Your task to perform on an android device: turn on data saver in the chrome app Image 0: 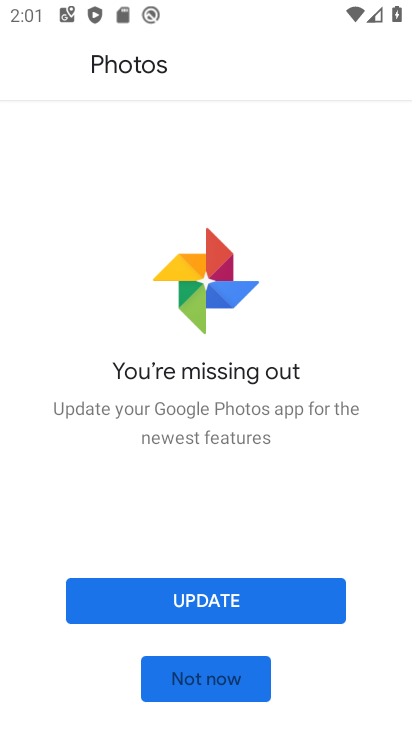
Step 0: press home button
Your task to perform on an android device: turn on data saver in the chrome app Image 1: 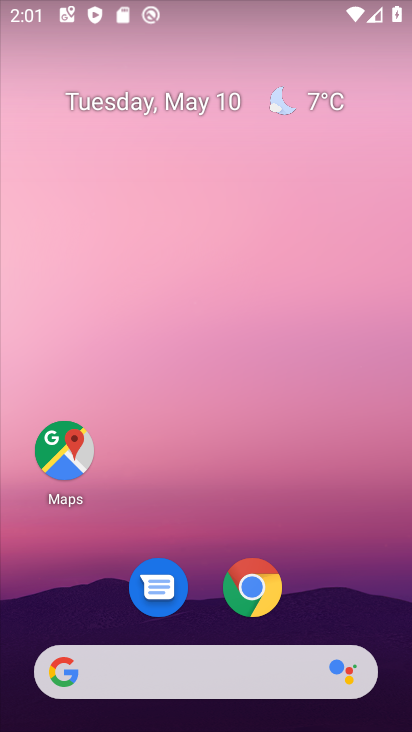
Step 1: click (265, 580)
Your task to perform on an android device: turn on data saver in the chrome app Image 2: 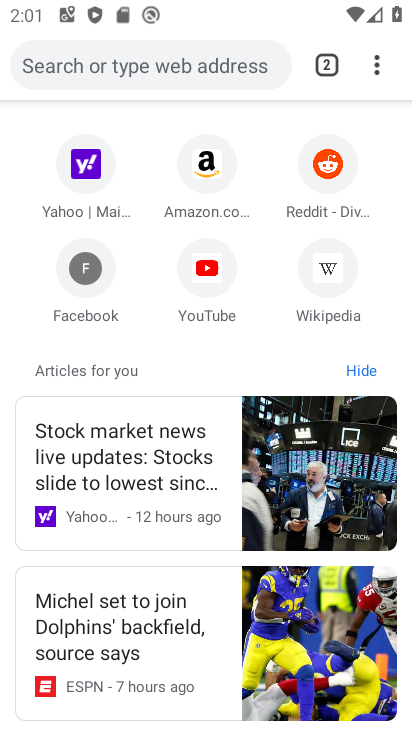
Step 2: click (379, 76)
Your task to perform on an android device: turn on data saver in the chrome app Image 3: 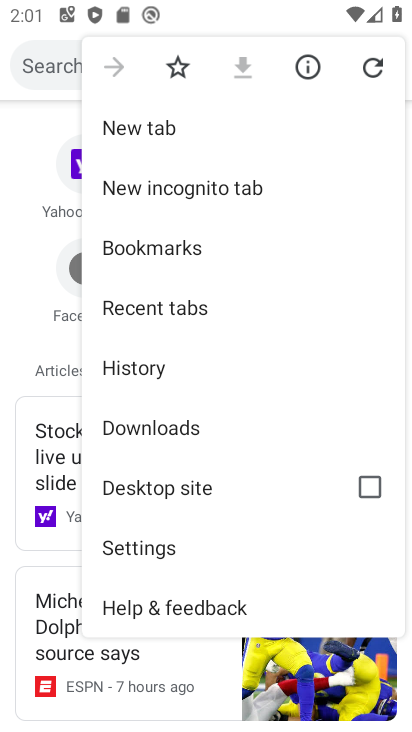
Step 3: click (161, 541)
Your task to perform on an android device: turn on data saver in the chrome app Image 4: 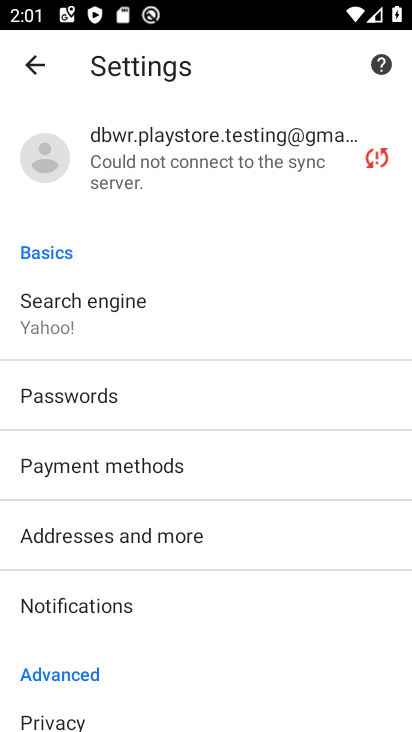
Step 4: drag from (179, 619) to (149, 317)
Your task to perform on an android device: turn on data saver in the chrome app Image 5: 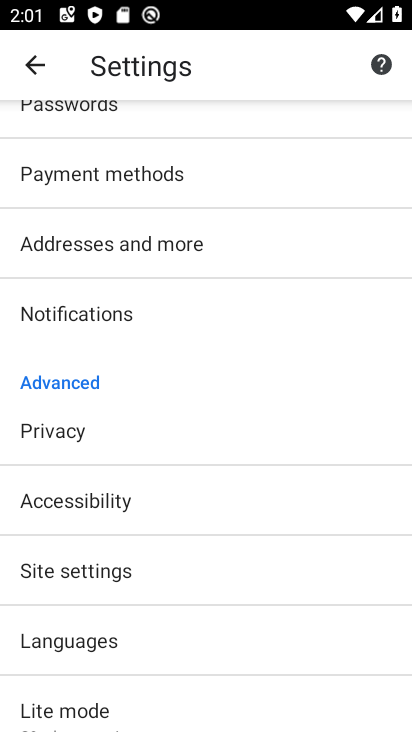
Step 5: drag from (152, 658) to (145, 334)
Your task to perform on an android device: turn on data saver in the chrome app Image 6: 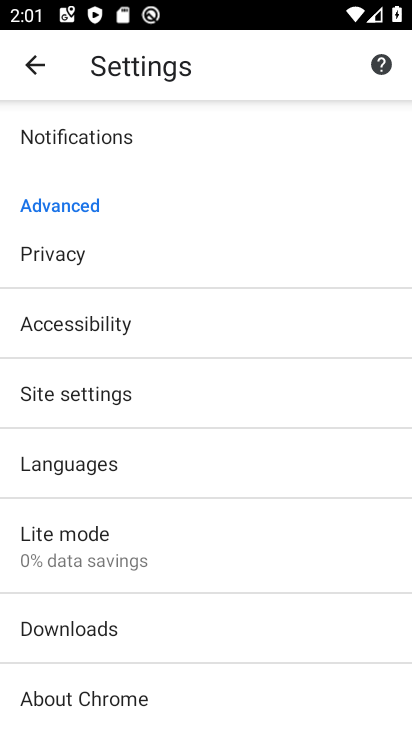
Step 6: click (127, 537)
Your task to perform on an android device: turn on data saver in the chrome app Image 7: 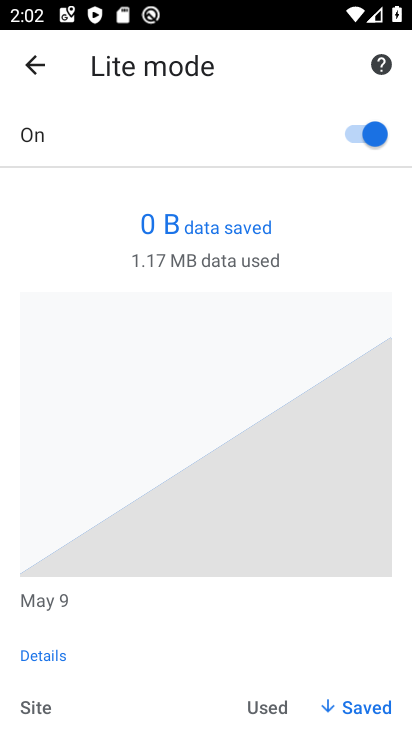
Step 7: task complete